Your task to perform on an android device: uninstall "Roku - Official Remote Control" Image 0: 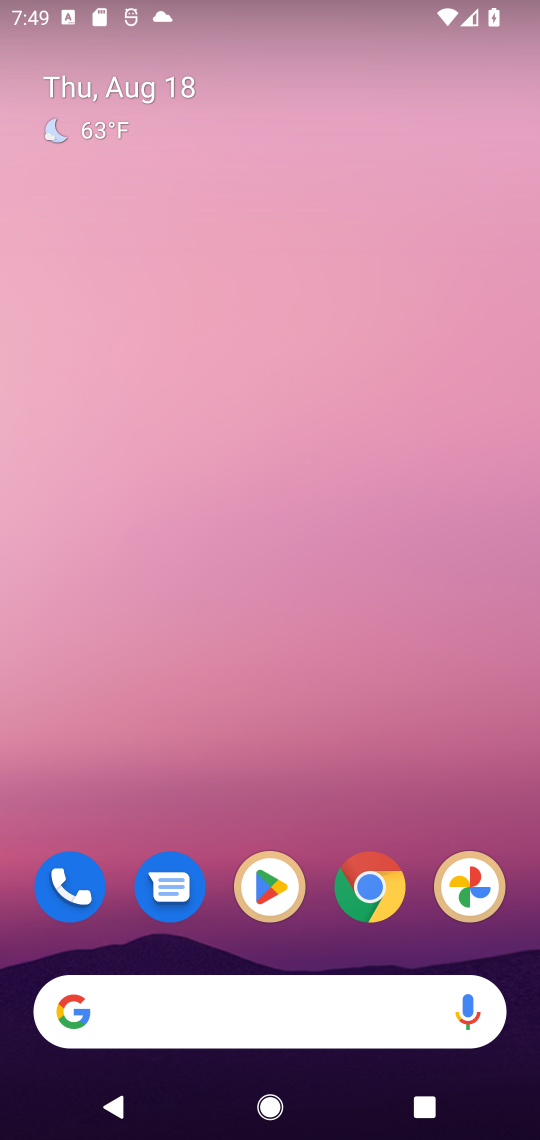
Step 0: drag from (322, 928) to (260, 65)
Your task to perform on an android device: uninstall "Roku - Official Remote Control" Image 1: 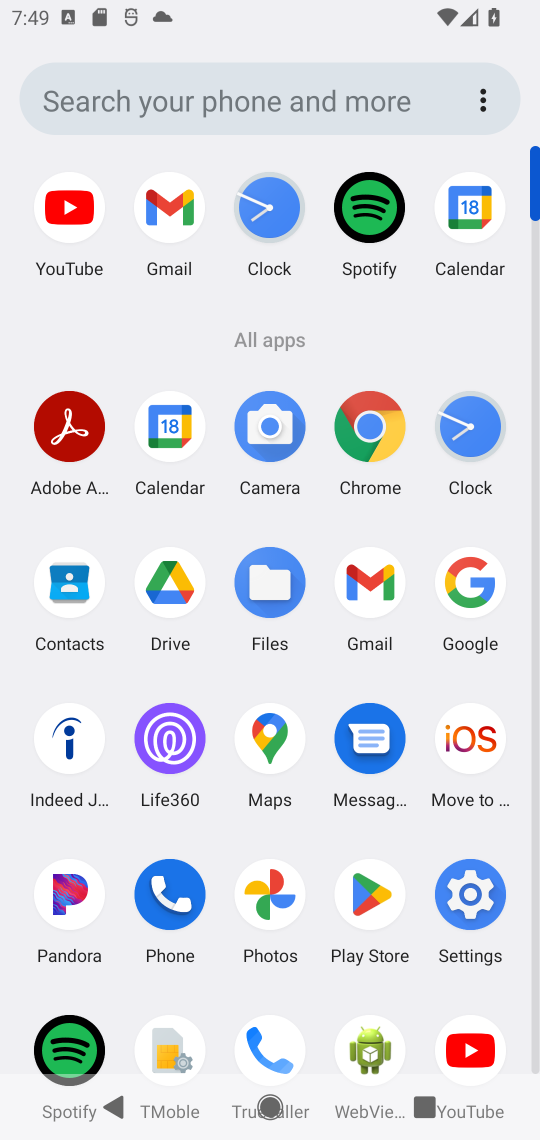
Step 1: click (373, 891)
Your task to perform on an android device: uninstall "Roku - Official Remote Control" Image 2: 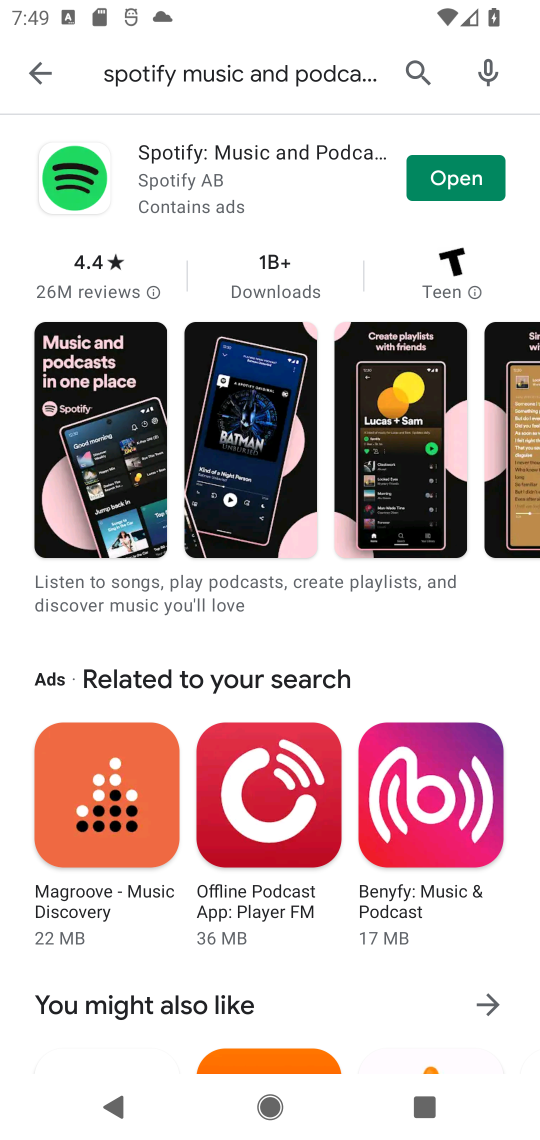
Step 2: click (419, 61)
Your task to perform on an android device: uninstall "Roku - Official Remote Control" Image 3: 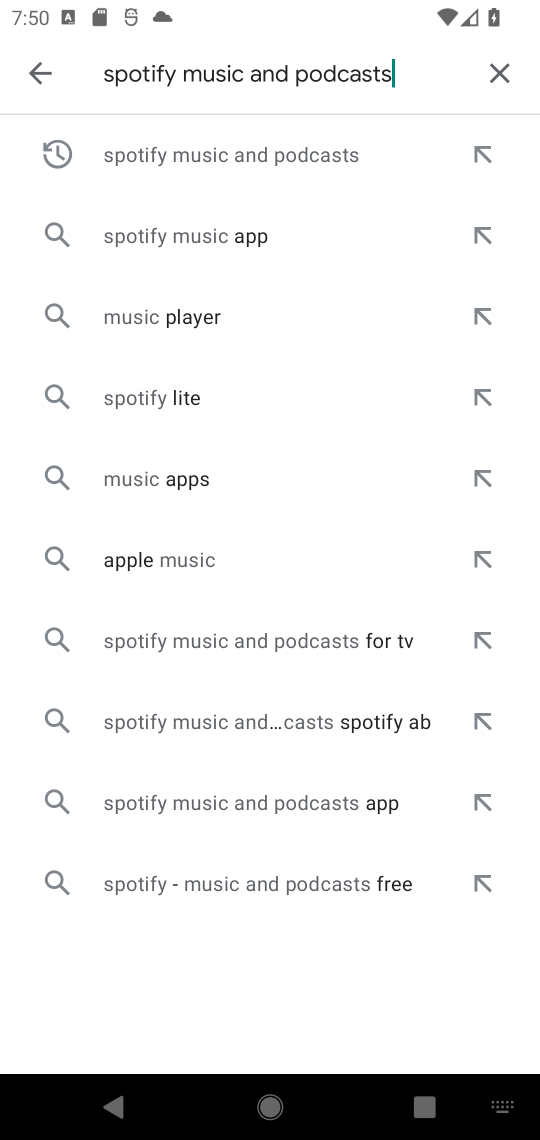
Step 3: click (499, 65)
Your task to perform on an android device: uninstall "Roku - Official Remote Control" Image 4: 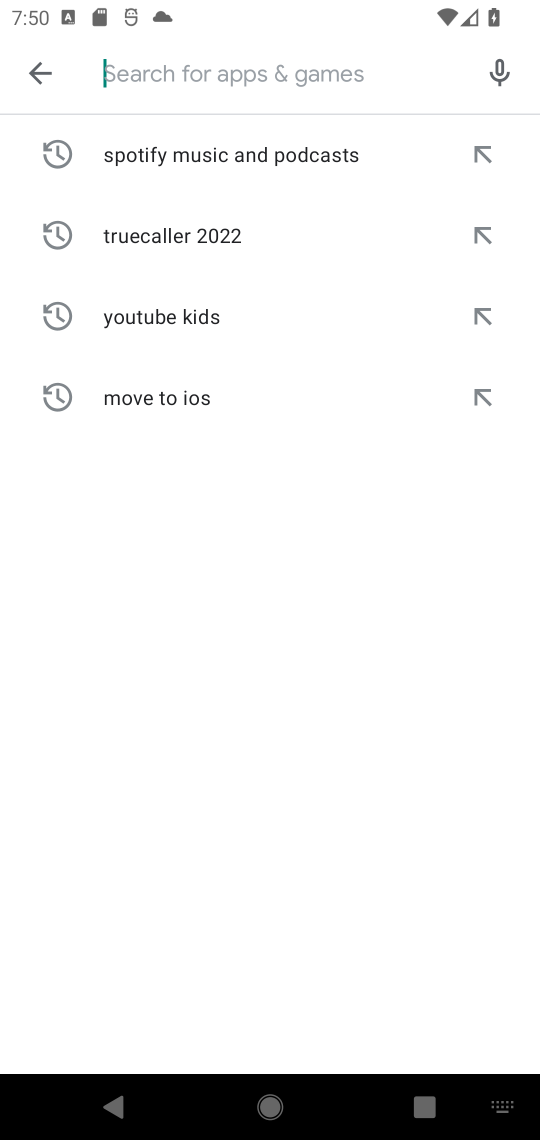
Step 4: type "Spotify: Music and Podcasts"
Your task to perform on an android device: uninstall "Roku - Official Remote Control" Image 5: 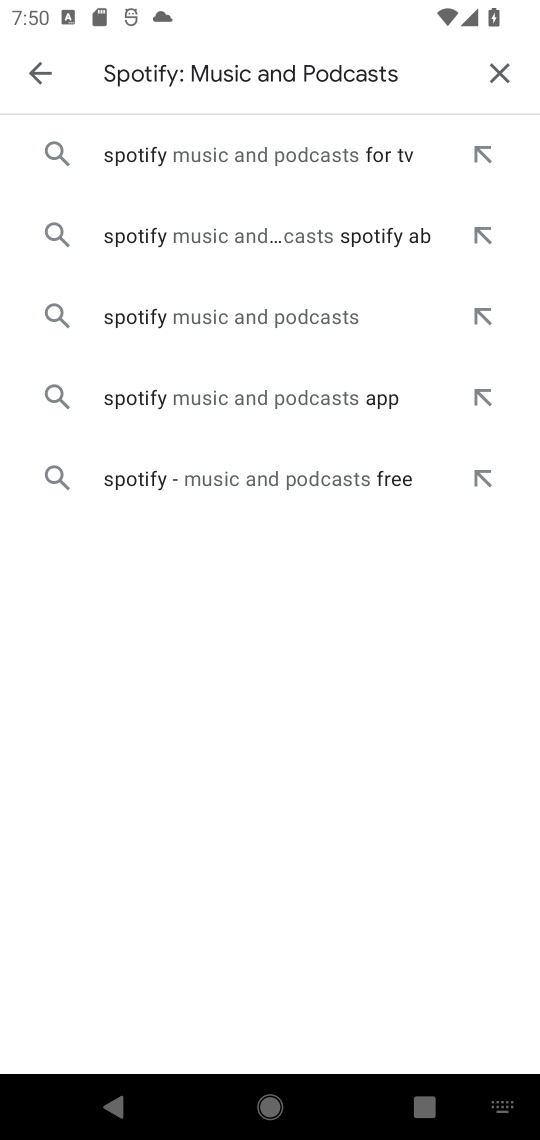
Step 5: click (500, 64)
Your task to perform on an android device: uninstall "Roku - Official Remote Control" Image 6: 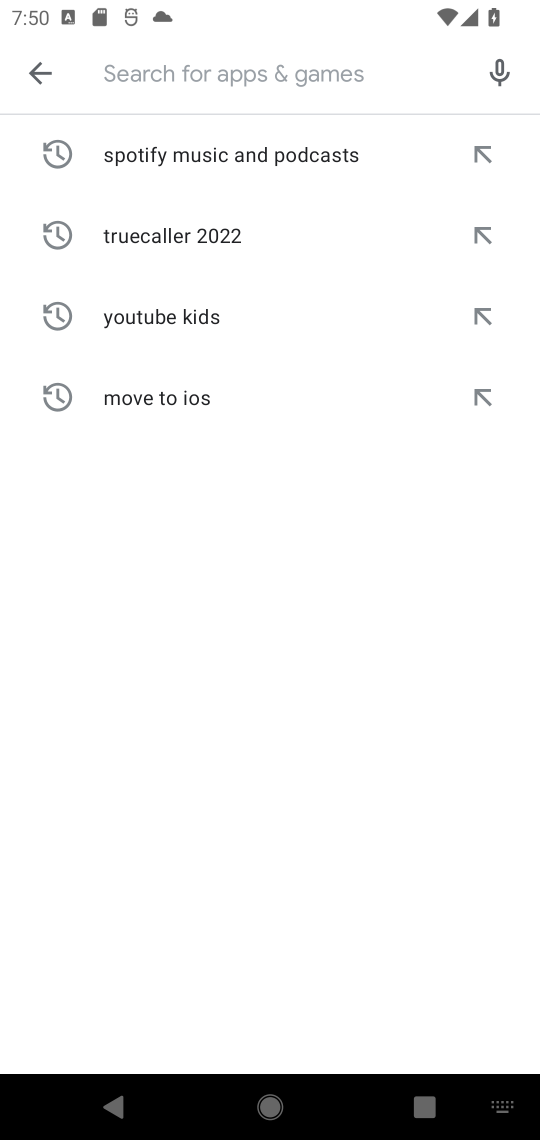
Step 6: type "Roku - Official Remote Contro"
Your task to perform on an android device: uninstall "Roku - Official Remote Control" Image 7: 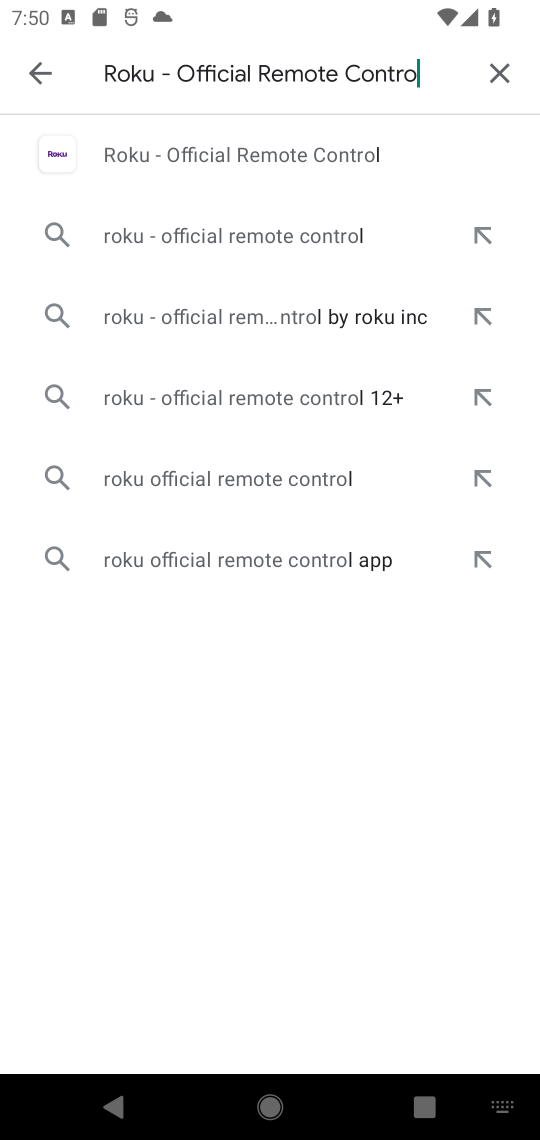
Step 7: click (231, 151)
Your task to perform on an android device: uninstall "Roku - Official Remote Control" Image 8: 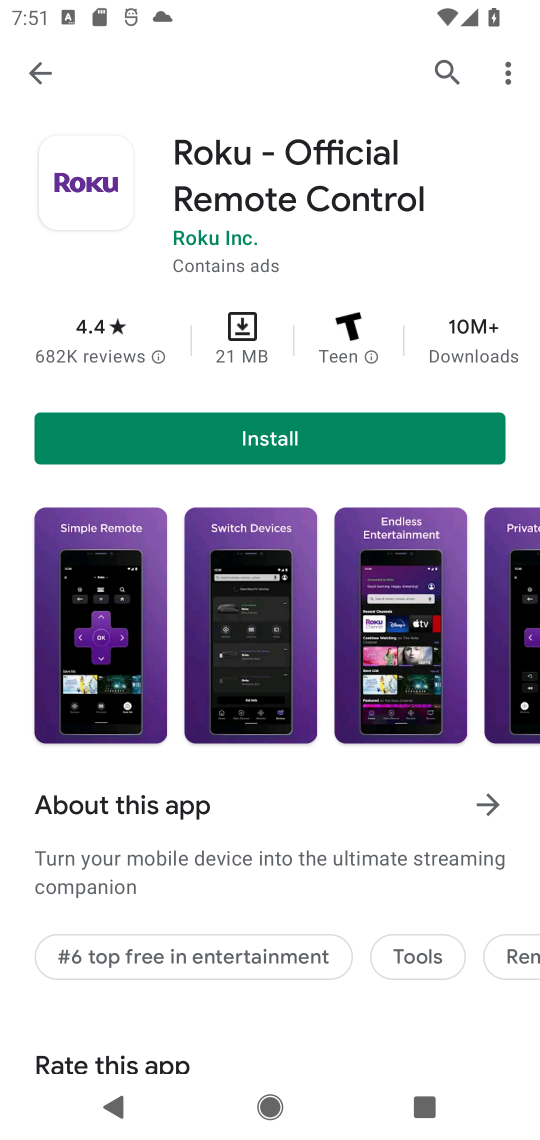
Step 8: click (268, 441)
Your task to perform on an android device: uninstall "Roku - Official Remote Control" Image 9: 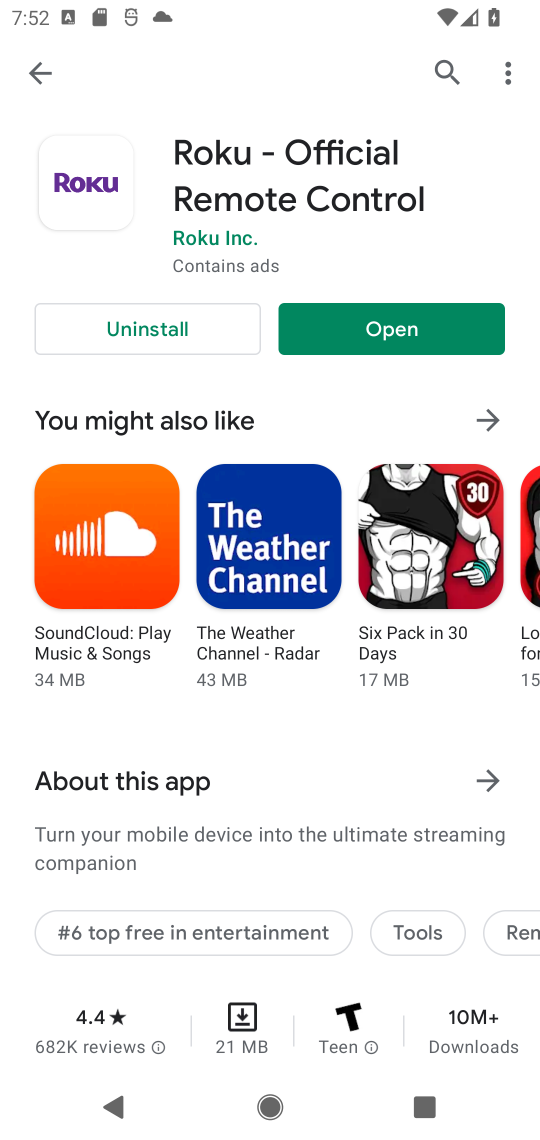
Step 9: click (185, 337)
Your task to perform on an android device: uninstall "Roku - Official Remote Control" Image 10: 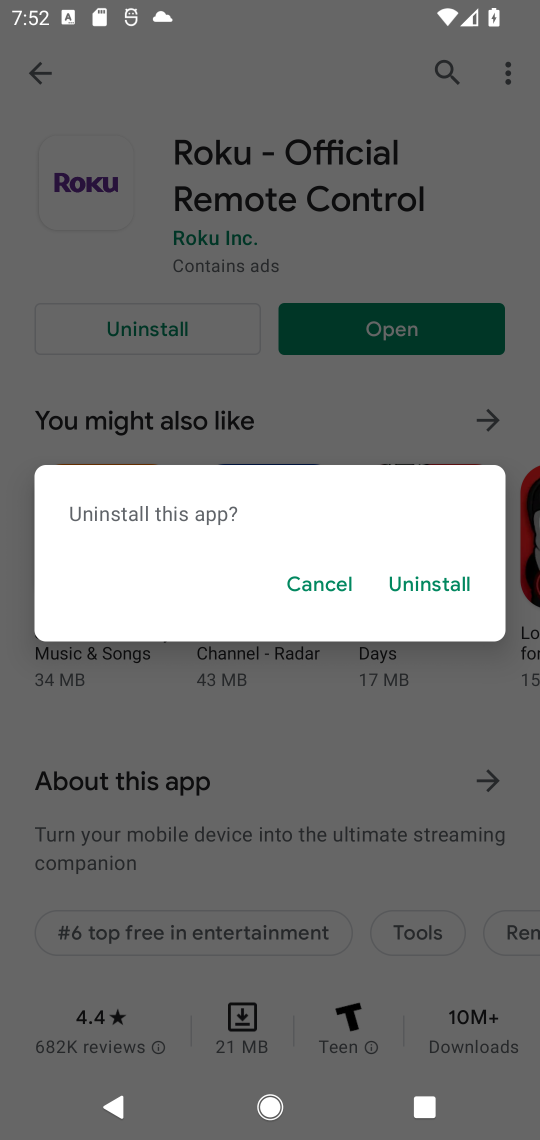
Step 10: click (408, 576)
Your task to perform on an android device: uninstall "Roku - Official Remote Control" Image 11: 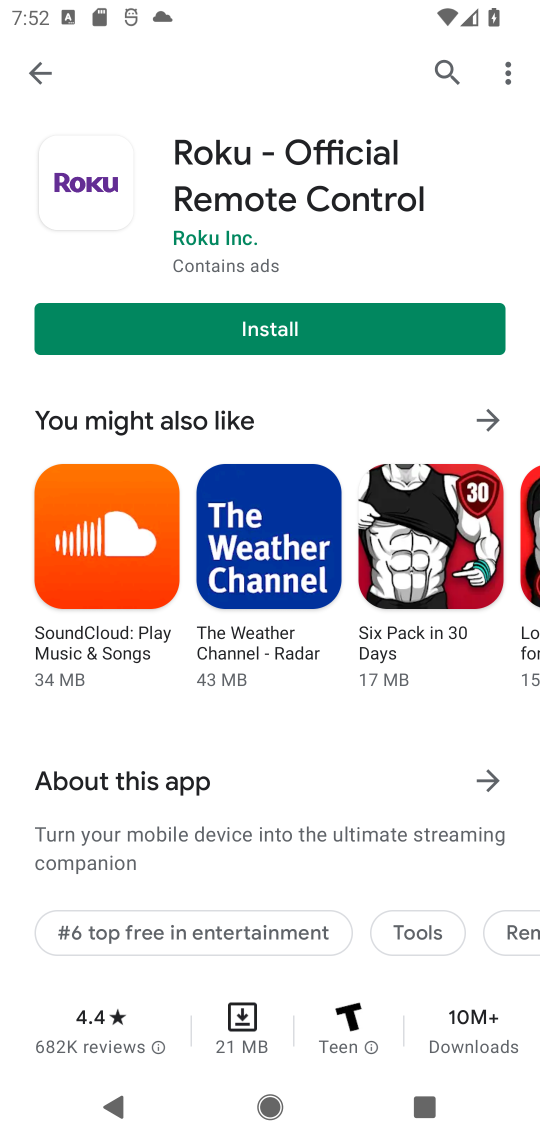
Step 11: task complete